Your task to perform on an android device: Open the calendar app, open the side menu, and click the "Day" option Image 0: 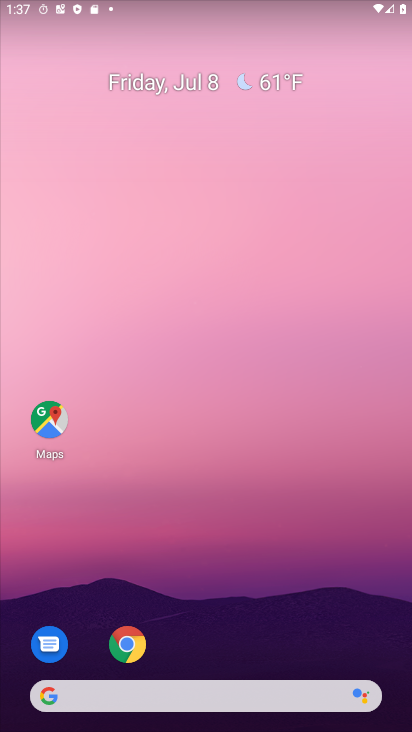
Step 0: press home button
Your task to perform on an android device: Open the calendar app, open the side menu, and click the "Day" option Image 1: 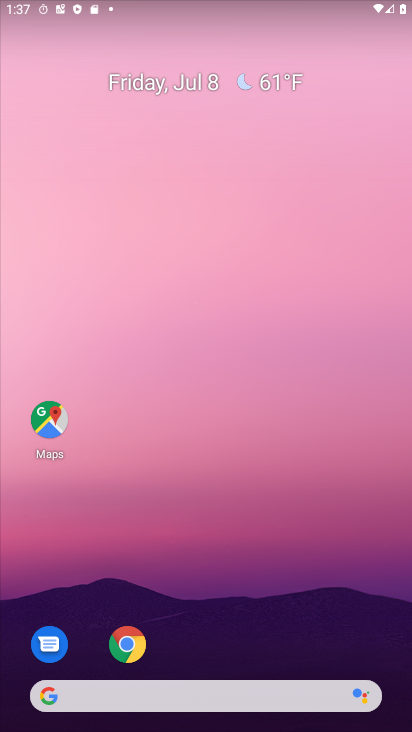
Step 1: press home button
Your task to perform on an android device: Open the calendar app, open the side menu, and click the "Day" option Image 2: 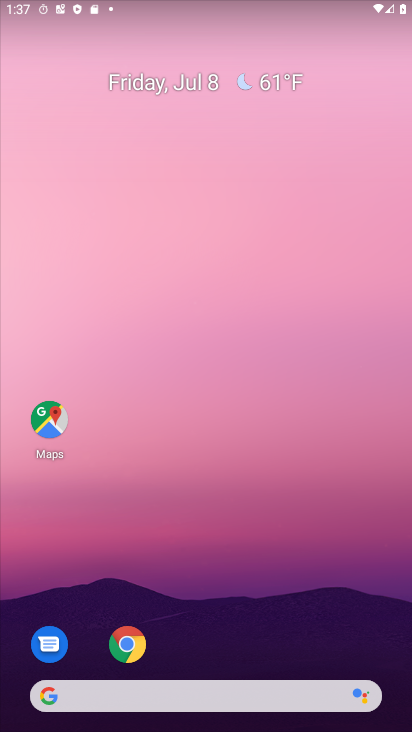
Step 2: drag from (197, 234) to (256, 54)
Your task to perform on an android device: Open the calendar app, open the side menu, and click the "Day" option Image 3: 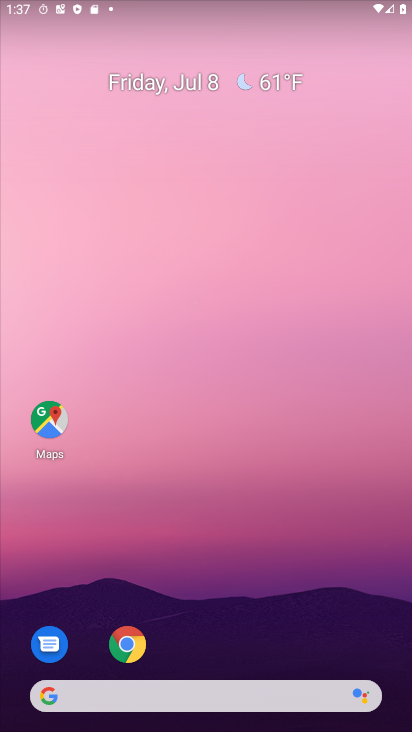
Step 3: drag from (176, 596) to (176, 220)
Your task to perform on an android device: Open the calendar app, open the side menu, and click the "Day" option Image 4: 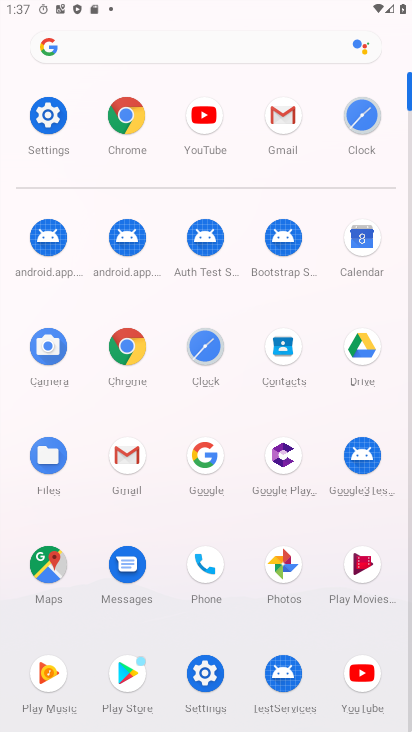
Step 4: click (361, 259)
Your task to perform on an android device: Open the calendar app, open the side menu, and click the "Day" option Image 5: 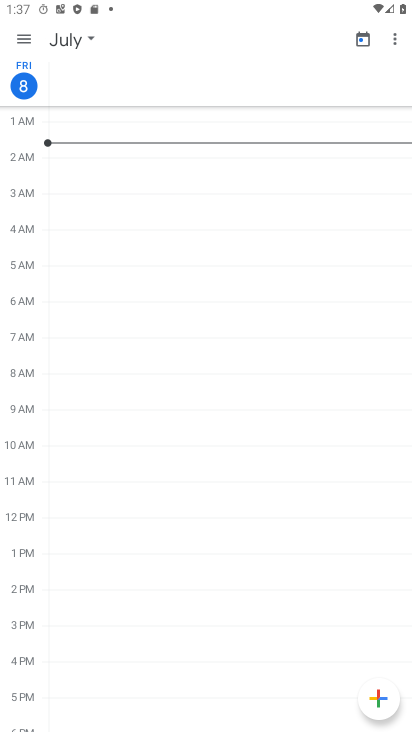
Step 5: click (23, 34)
Your task to perform on an android device: Open the calendar app, open the side menu, and click the "Day" option Image 6: 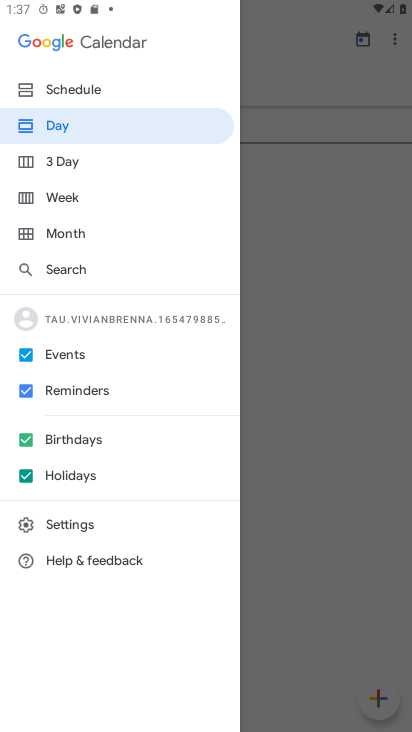
Step 6: click (58, 125)
Your task to perform on an android device: Open the calendar app, open the side menu, and click the "Day" option Image 7: 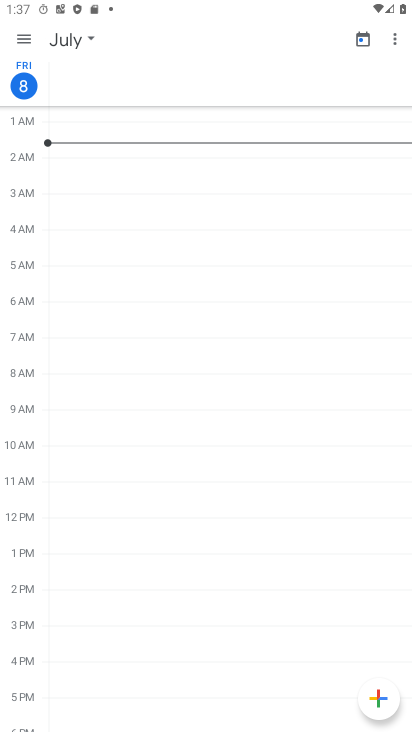
Step 7: task complete